Your task to perform on an android device: Go to network settings Image 0: 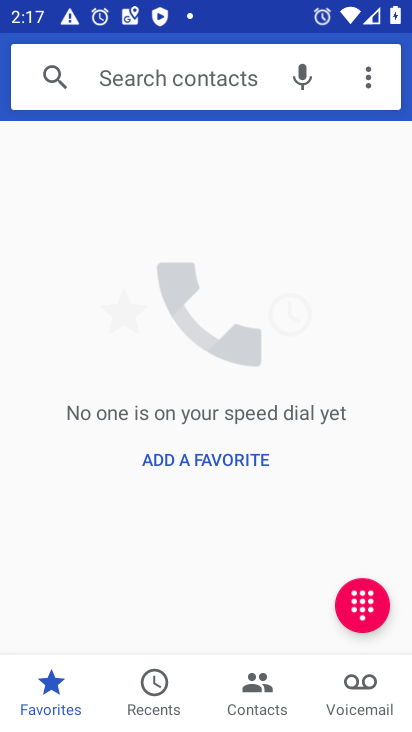
Step 0: press home button
Your task to perform on an android device: Go to network settings Image 1: 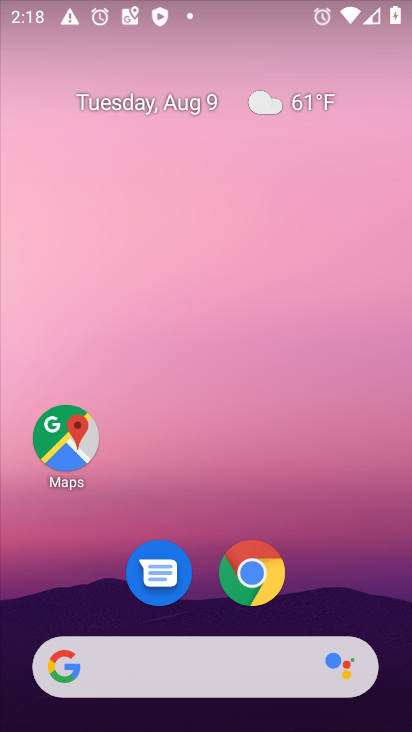
Step 1: drag from (8, 679) to (209, 82)
Your task to perform on an android device: Go to network settings Image 2: 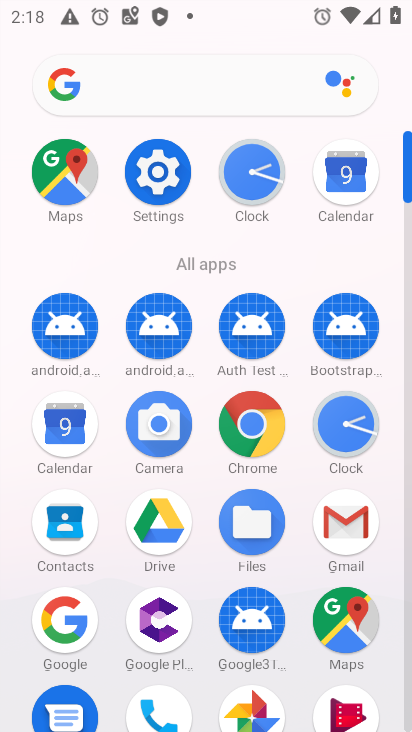
Step 2: click (149, 171)
Your task to perform on an android device: Go to network settings Image 3: 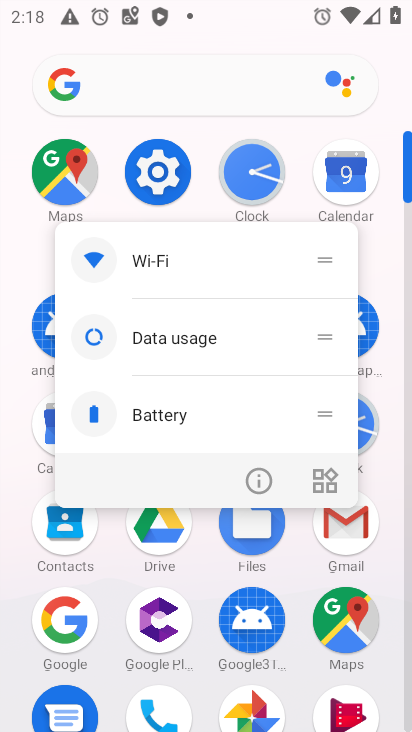
Step 3: click (158, 171)
Your task to perform on an android device: Go to network settings Image 4: 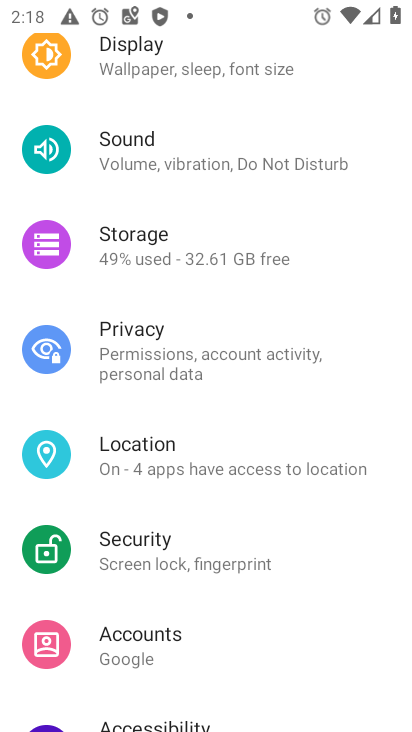
Step 4: drag from (225, 166) to (171, 636)
Your task to perform on an android device: Go to network settings Image 5: 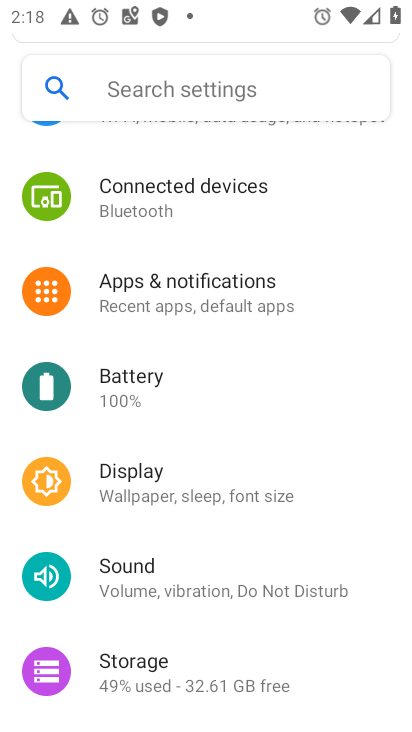
Step 5: drag from (265, 138) to (196, 586)
Your task to perform on an android device: Go to network settings Image 6: 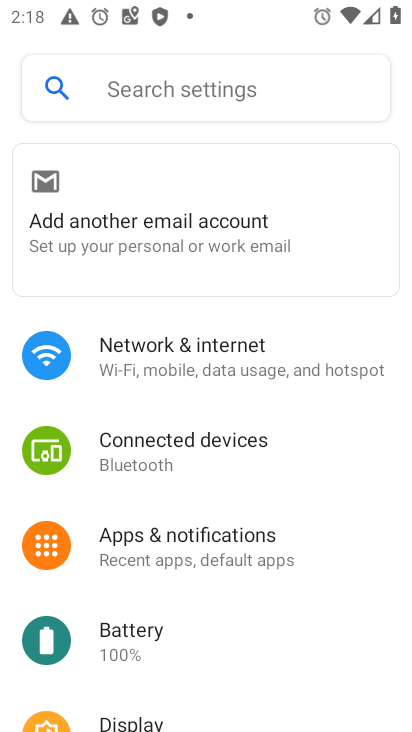
Step 6: click (192, 342)
Your task to perform on an android device: Go to network settings Image 7: 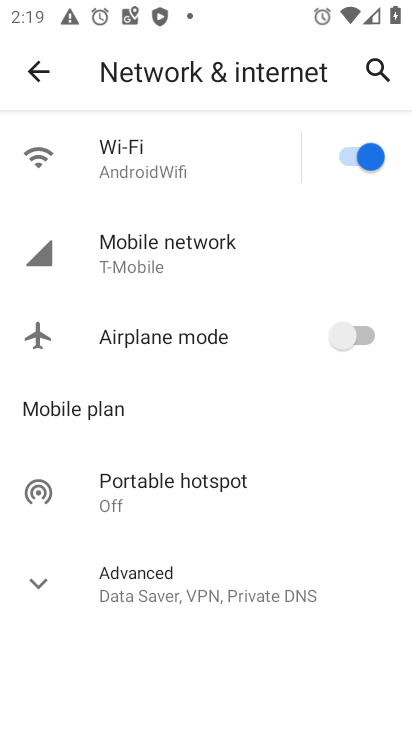
Step 7: click (202, 259)
Your task to perform on an android device: Go to network settings Image 8: 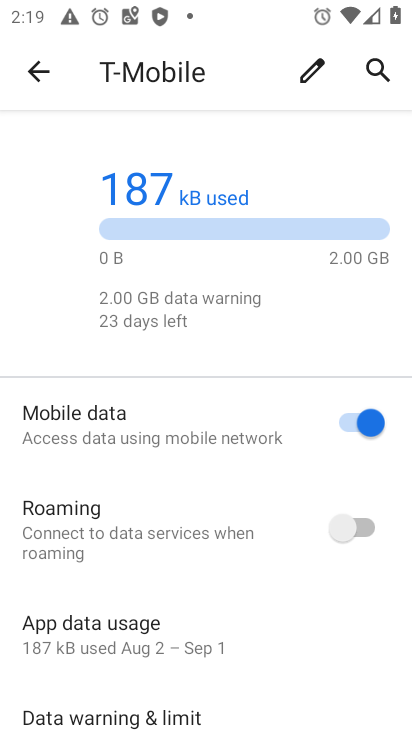
Step 8: task complete